Your task to perform on an android device: toggle show notifications on the lock screen Image 0: 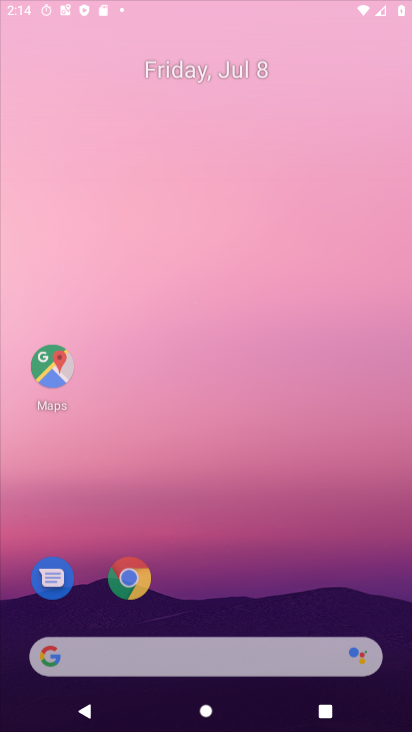
Step 0: press home button
Your task to perform on an android device: toggle show notifications on the lock screen Image 1: 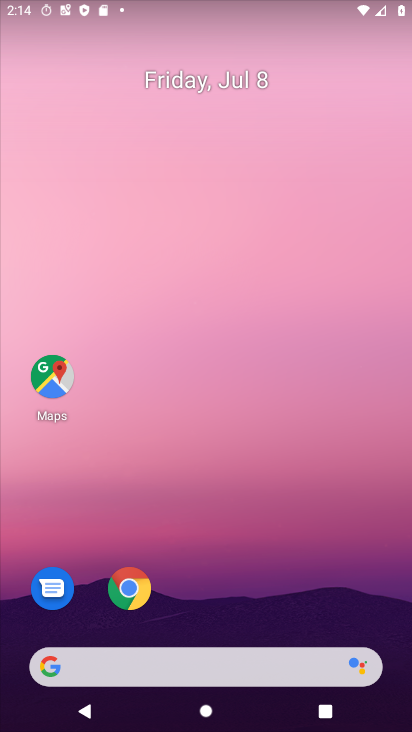
Step 1: drag from (256, 604) to (263, 124)
Your task to perform on an android device: toggle show notifications on the lock screen Image 2: 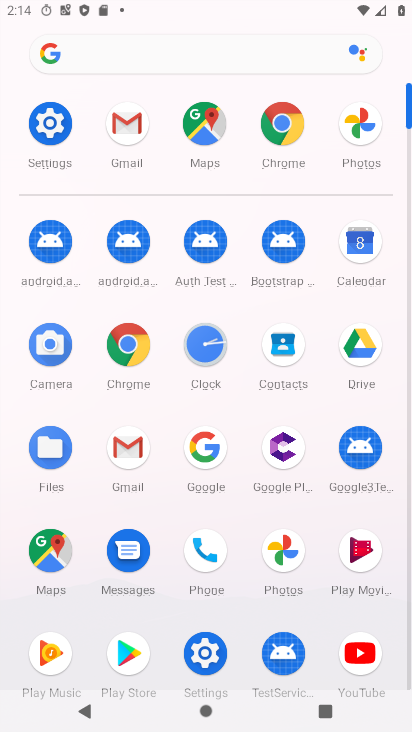
Step 2: click (45, 124)
Your task to perform on an android device: toggle show notifications on the lock screen Image 3: 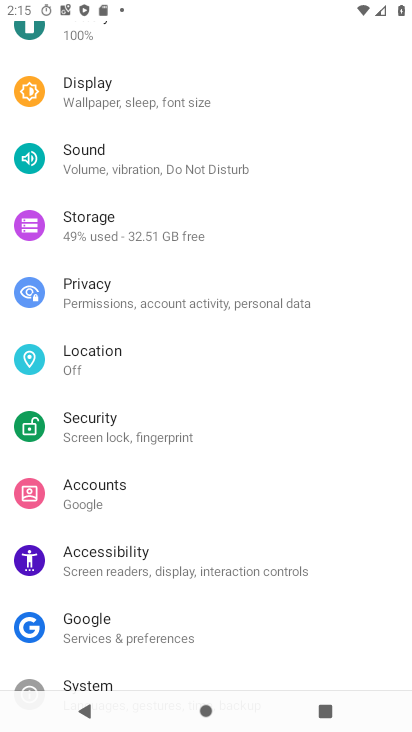
Step 3: drag from (303, 153) to (330, 519)
Your task to perform on an android device: toggle show notifications on the lock screen Image 4: 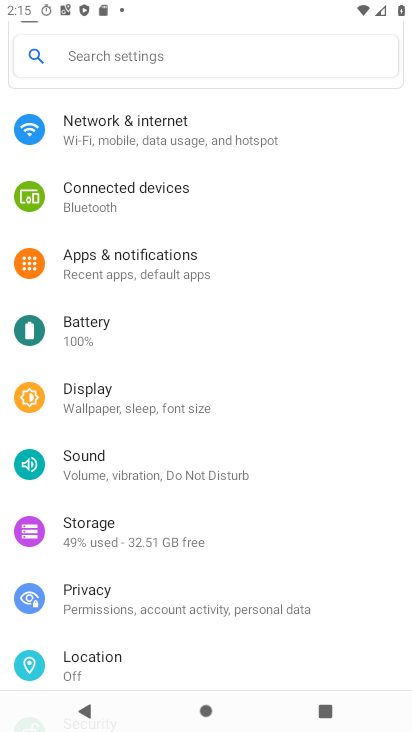
Step 4: click (149, 263)
Your task to perform on an android device: toggle show notifications on the lock screen Image 5: 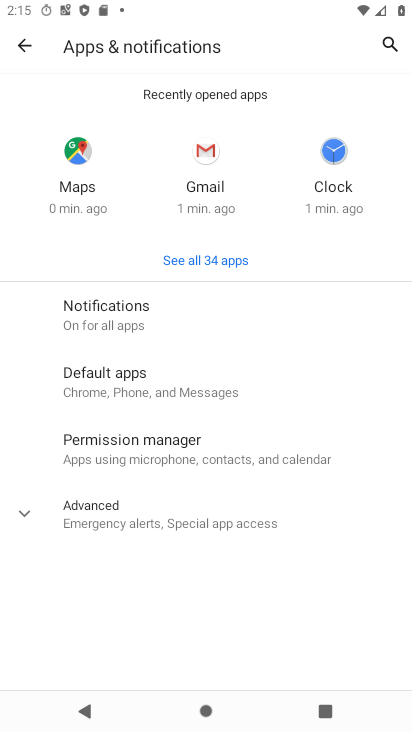
Step 5: click (122, 316)
Your task to perform on an android device: toggle show notifications on the lock screen Image 6: 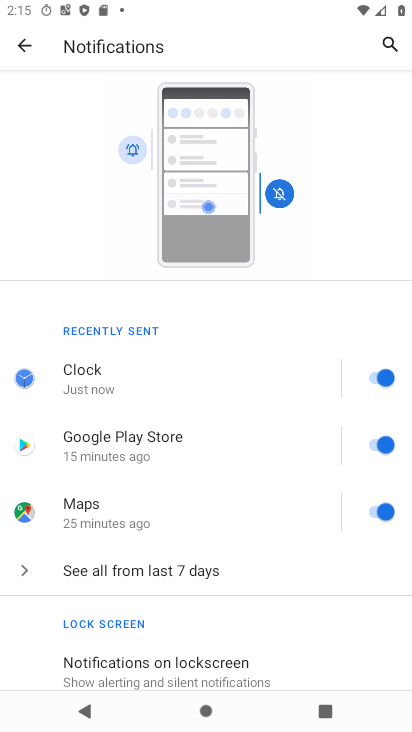
Step 6: drag from (305, 602) to (283, 273)
Your task to perform on an android device: toggle show notifications on the lock screen Image 7: 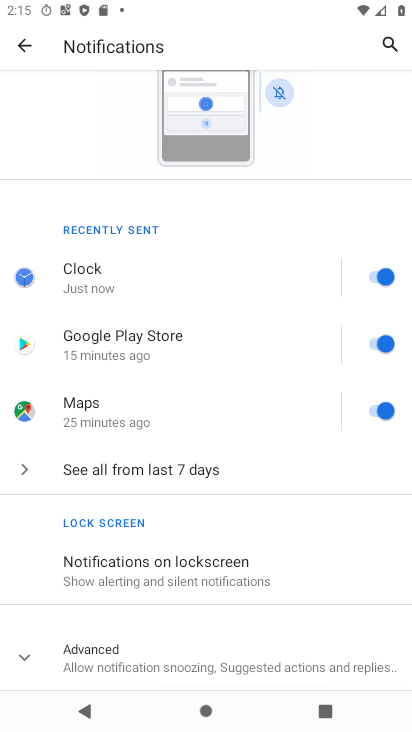
Step 7: click (130, 571)
Your task to perform on an android device: toggle show notifications on the lock screen Image 8: 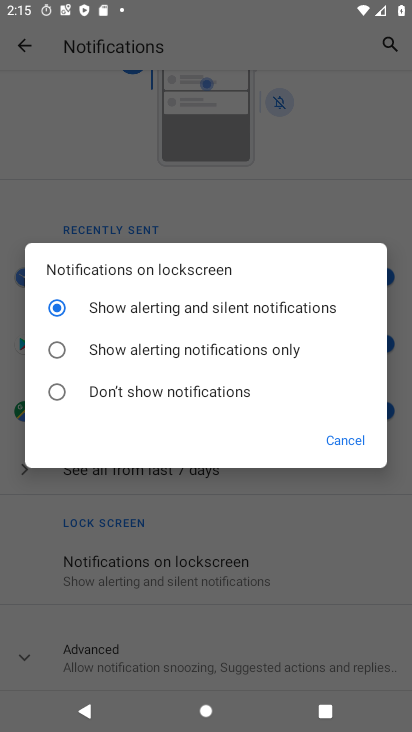
Step 8: click (52, 387)
Your task to perform on an android device: toggle show notifications on the lock screen Image 9: 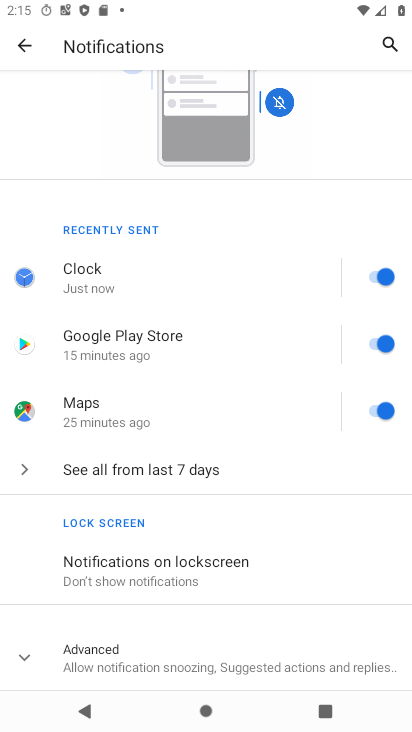
Step 9: task complete